Your task to perform on an android device: open app "Move to iOS" Image 0: 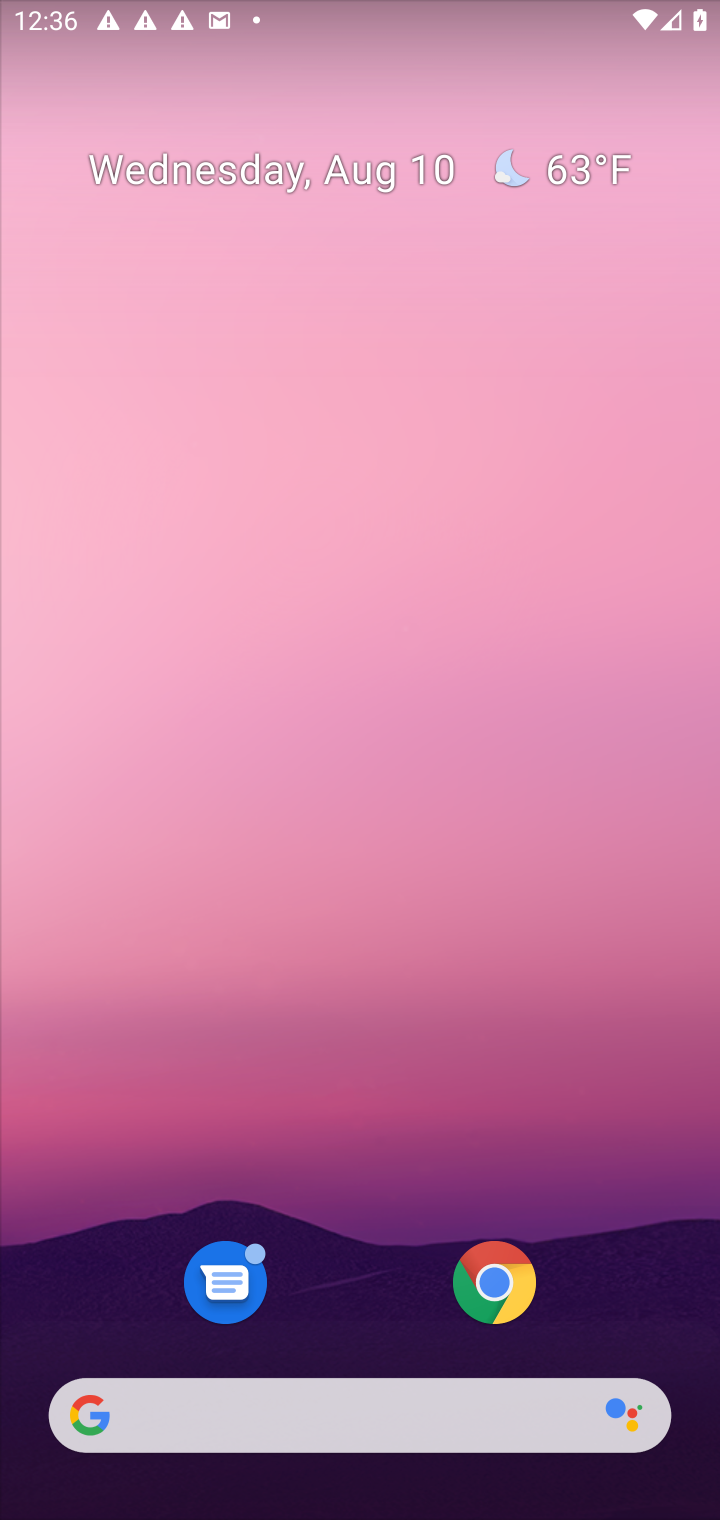
Step 0: drag from (329, 1321) to (302, 322)
Your task to perform on an android device: open app "Move to iOS" Image 1: 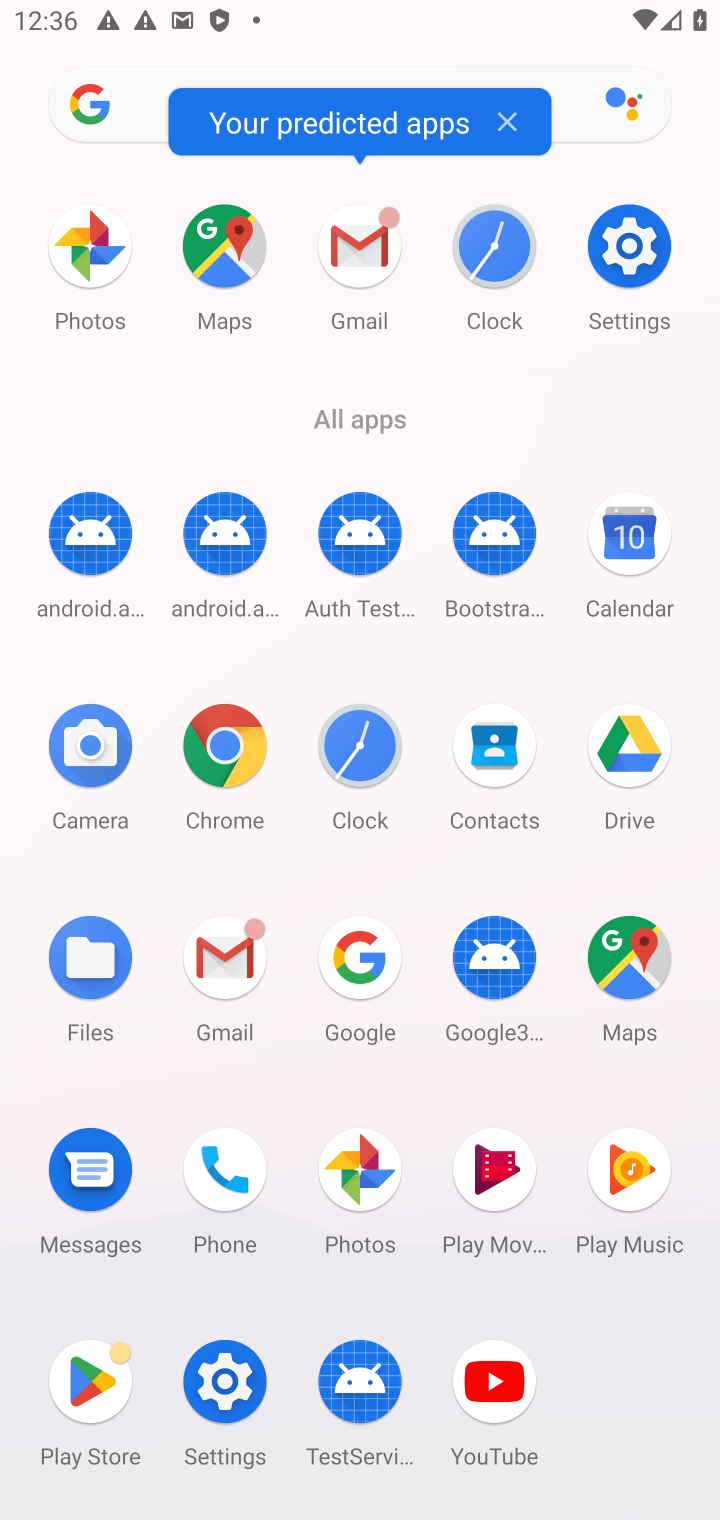
Step 1: click (96, 1378)
Your task to perform on an android device: open app "Move to iOS" Image 2: 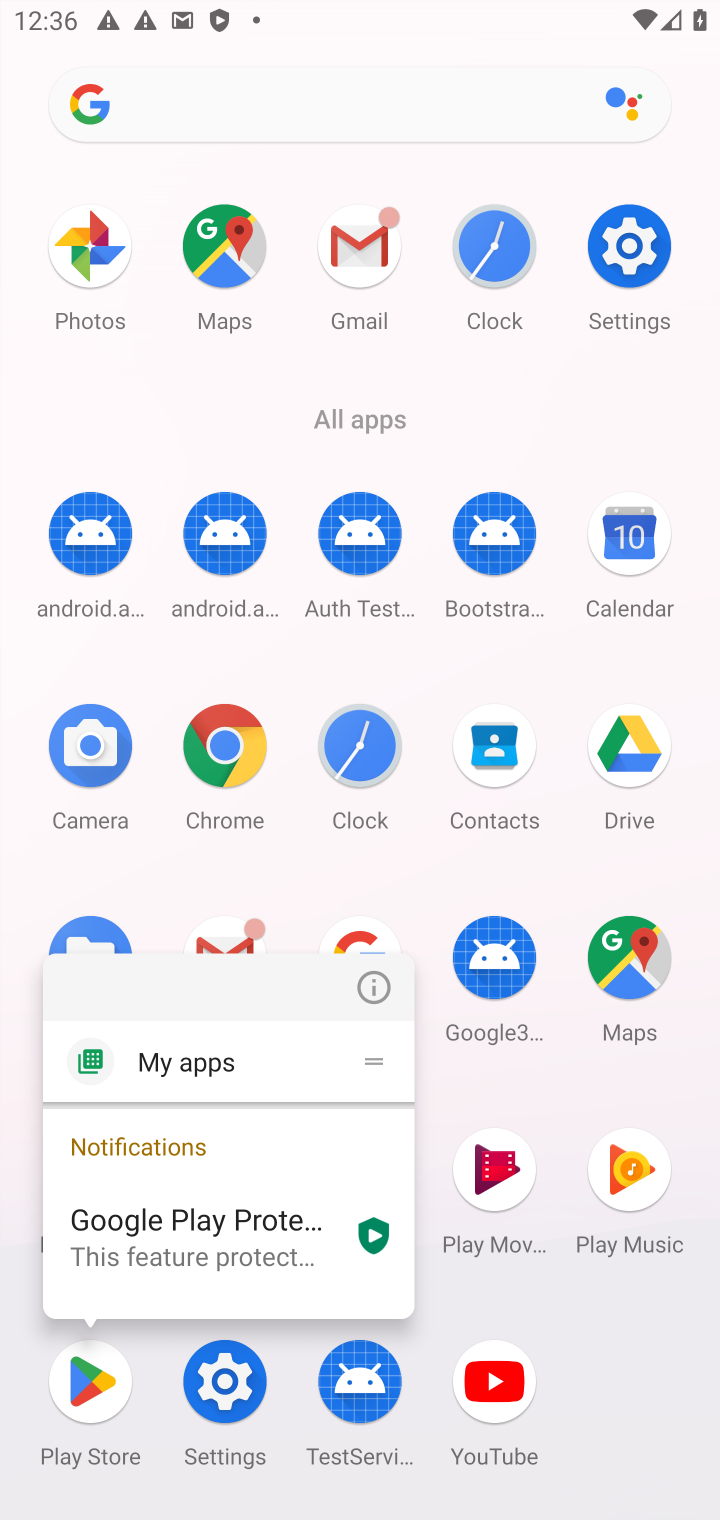
Step 2: click (96, 1378)
Your task to perform on an android device: open app "Move to iOS" Image 3: 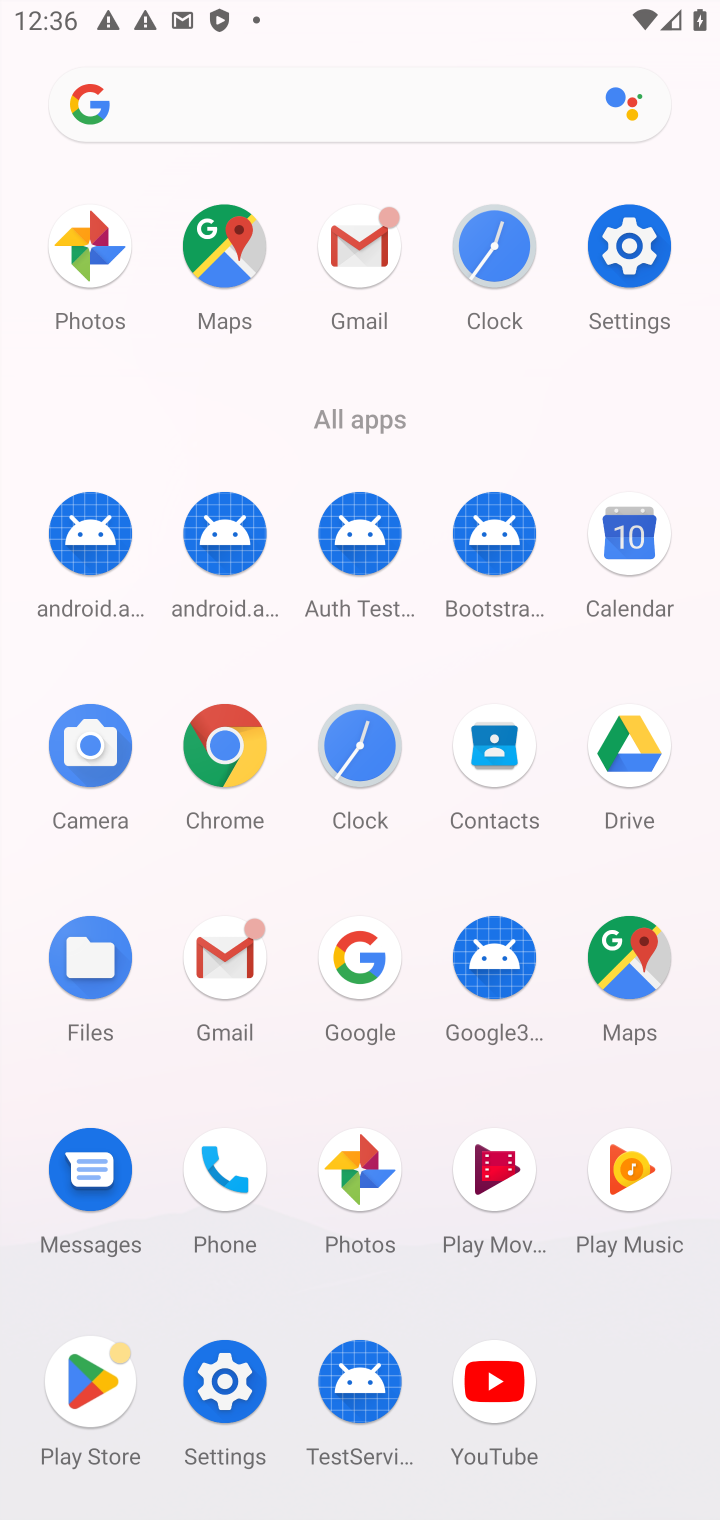
Step 3: click (96, 1378)
Your task to perform on an android device: open app "Move to iOS" Image 4: 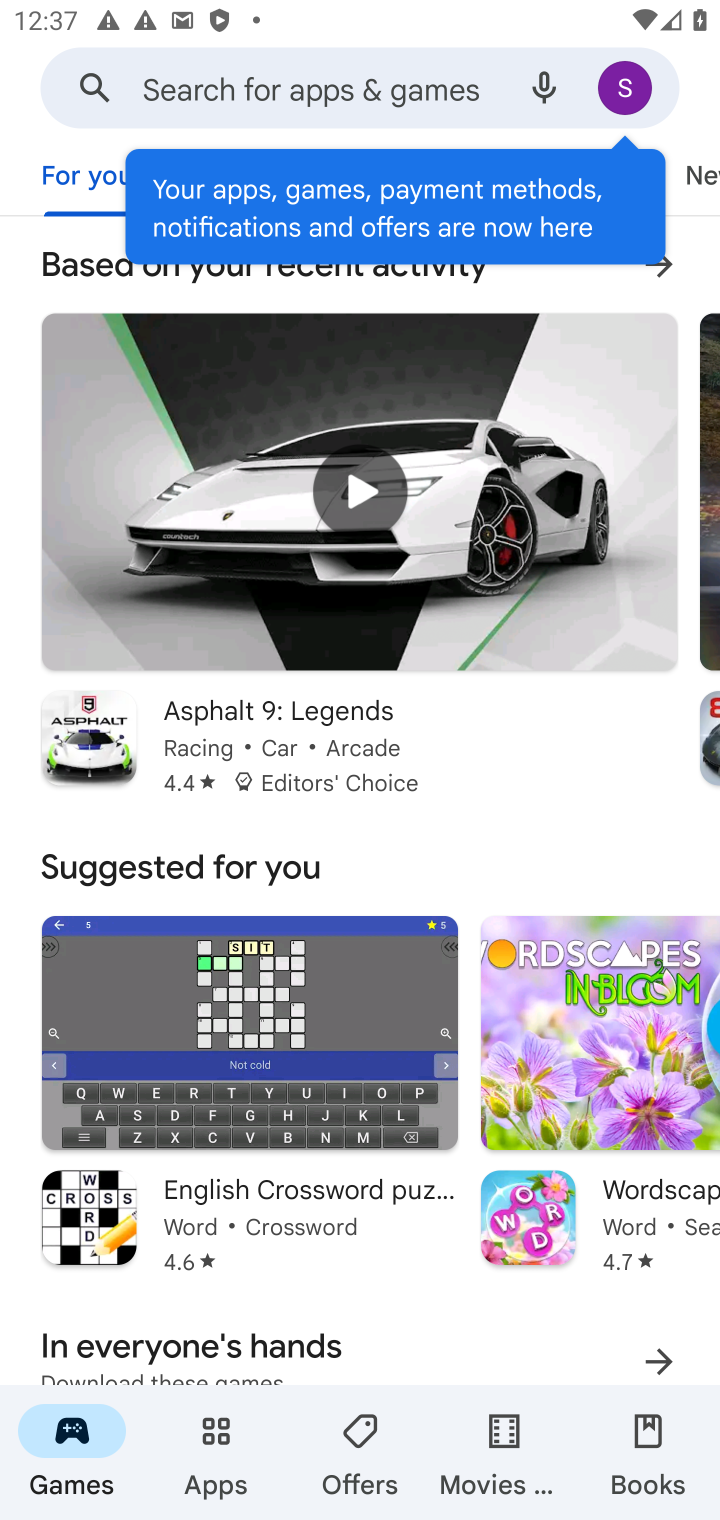
Step 4: click (279, 69)
Your task to perform on an android device: open app "Move to iOS" Image 5: 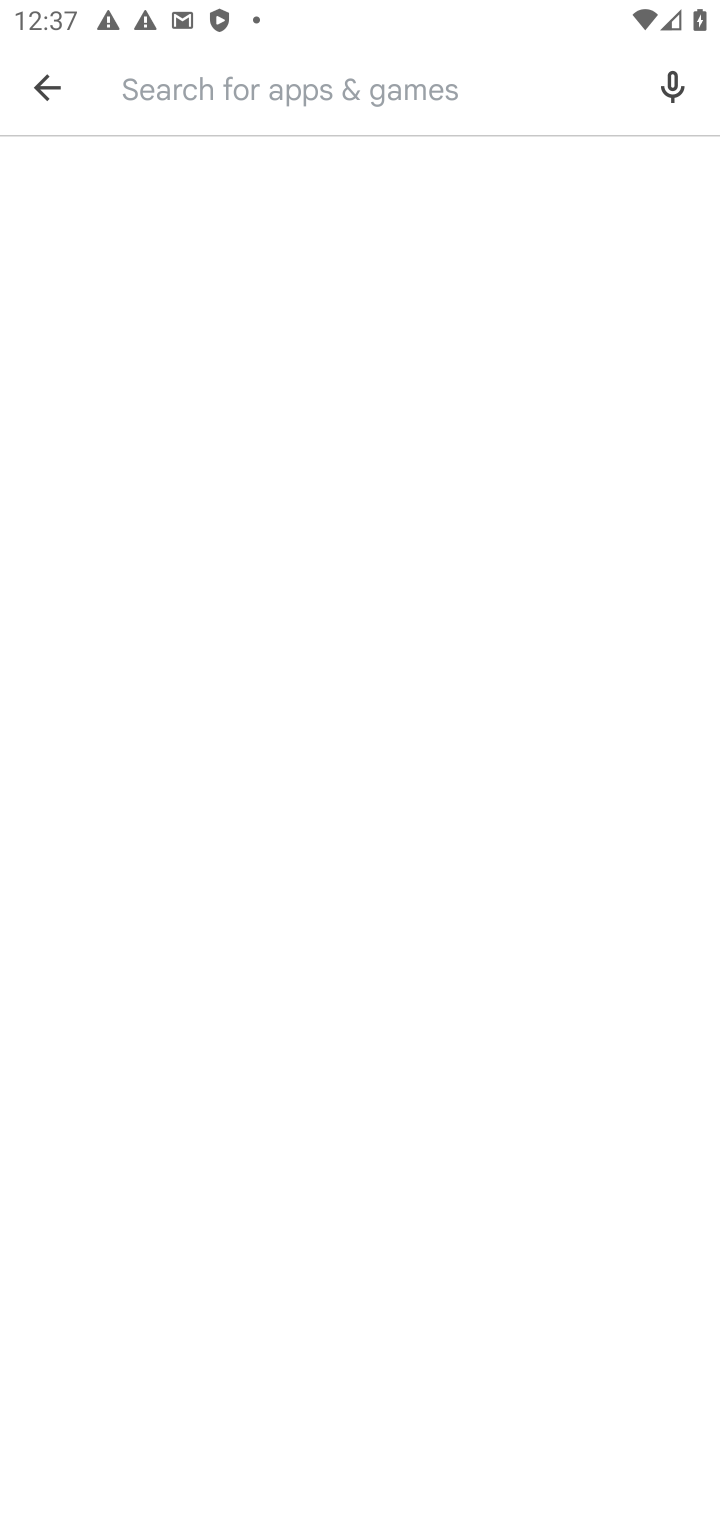
Step 5: type "Move to iOS "
Your task to perform on an android device: open app "Move to iOS" Image 6: 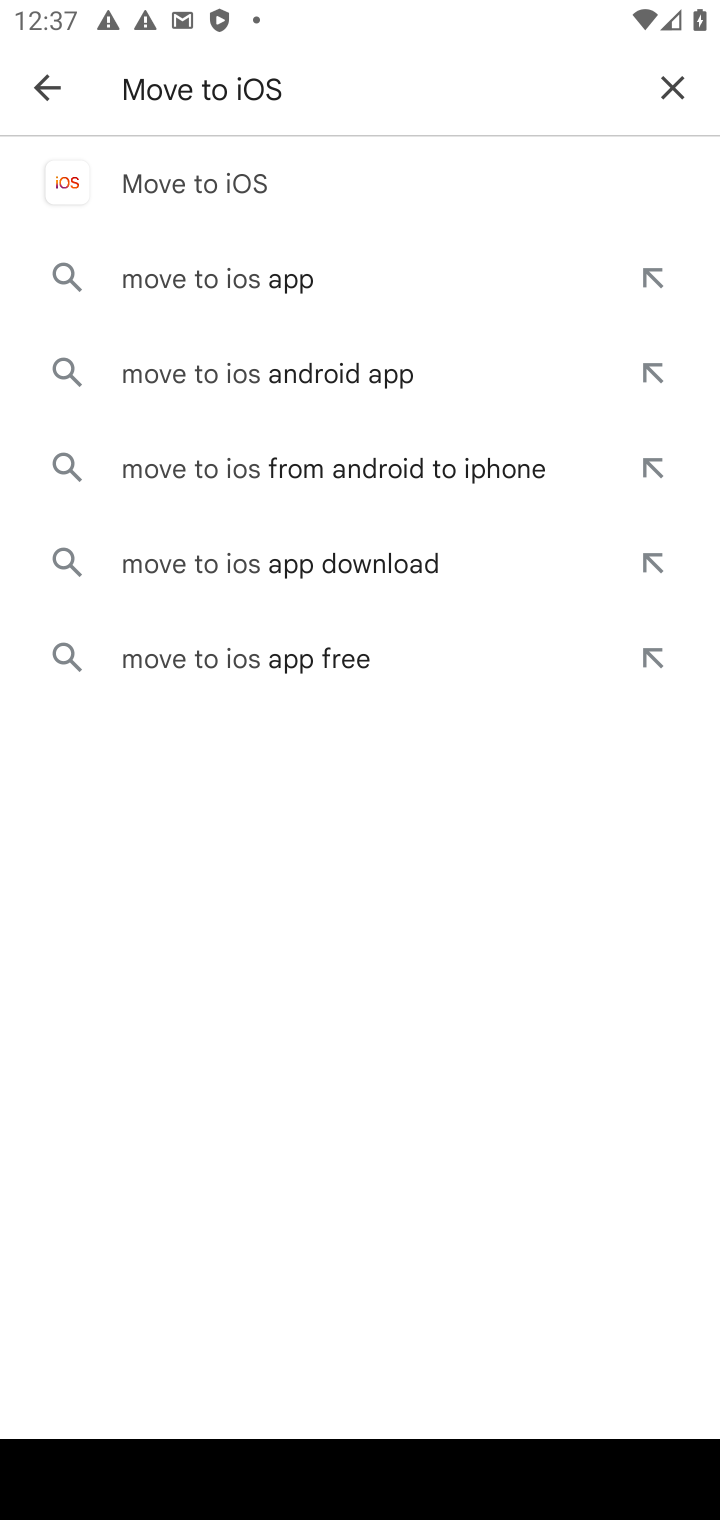
Step 6: click (257, 154)
Your task to perform on an android device: open app "Move to iOS" Image 7: 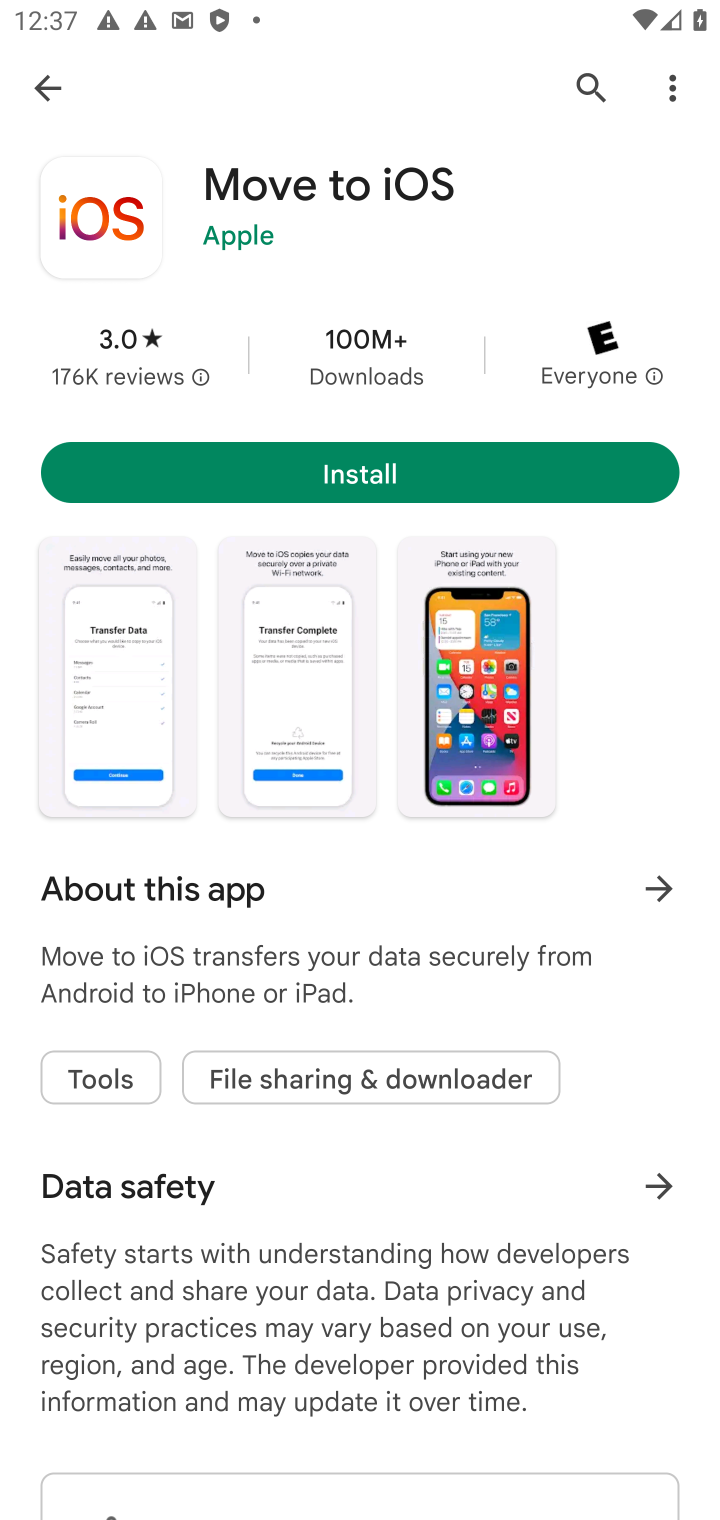
Step 7: click (493, 458)
Your task to perform on an android device: open app "Move to iOS" Image 8: 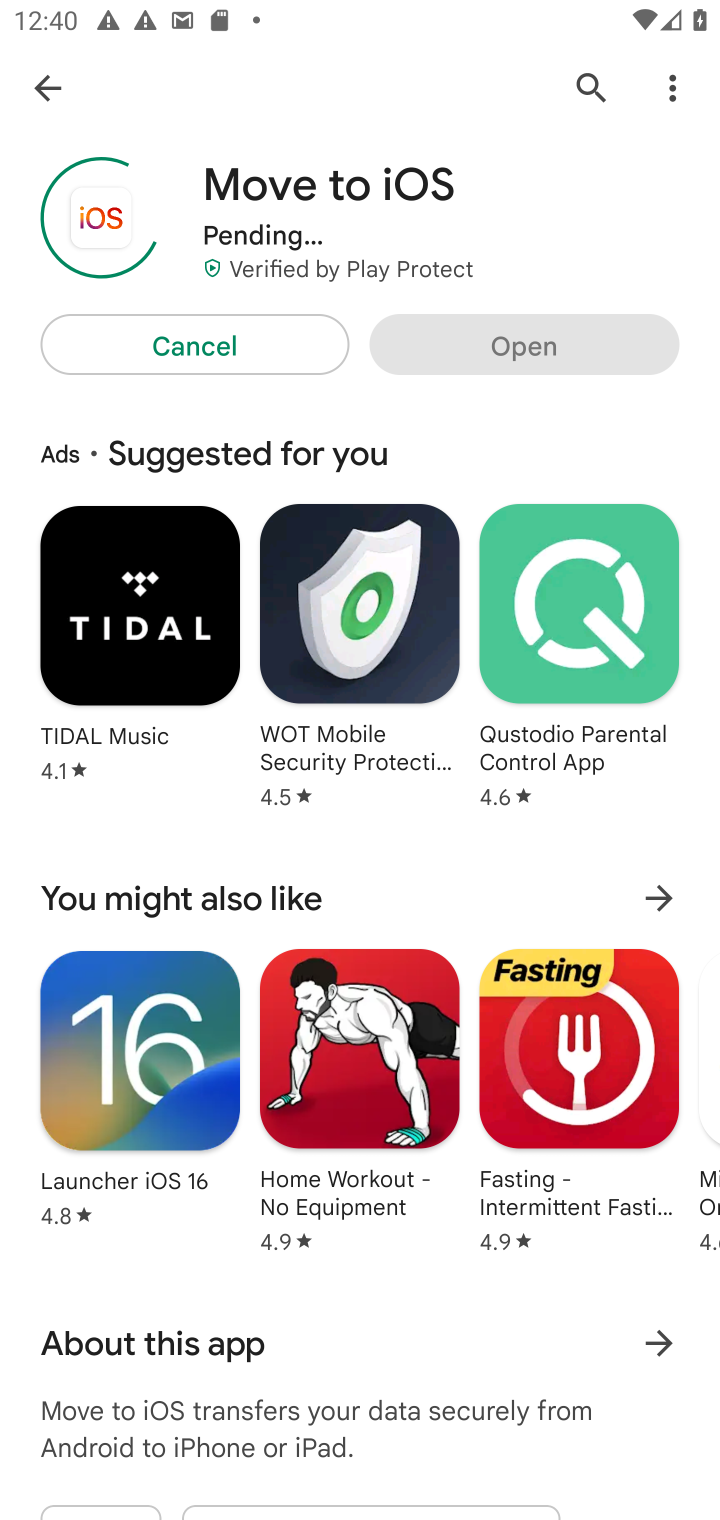
Step 8: task complete